Your task to perform on an android device: visit the assistant section in the google photos Image 0: 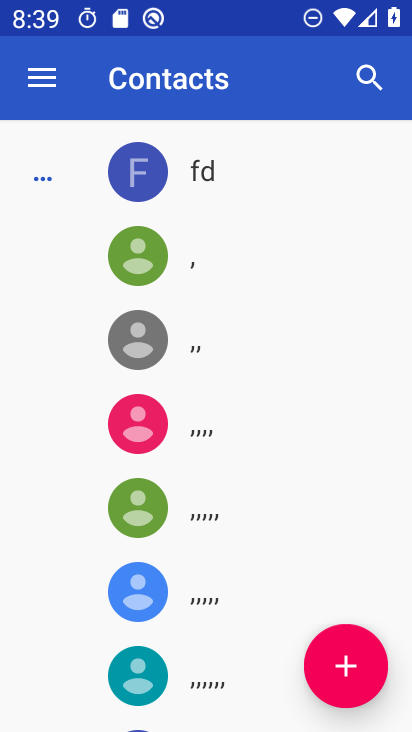
Step 0: press home button
Your task to perform on an android device: visit the assistant section in the google photos Image 1: 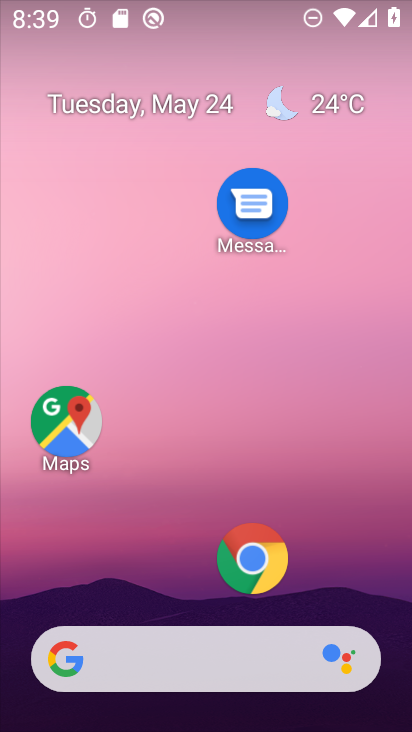
Step 1: drag from (161, 600) to (167, 229)
Your task to perform on an android device: visit the assistant section in the google photos Image 2: 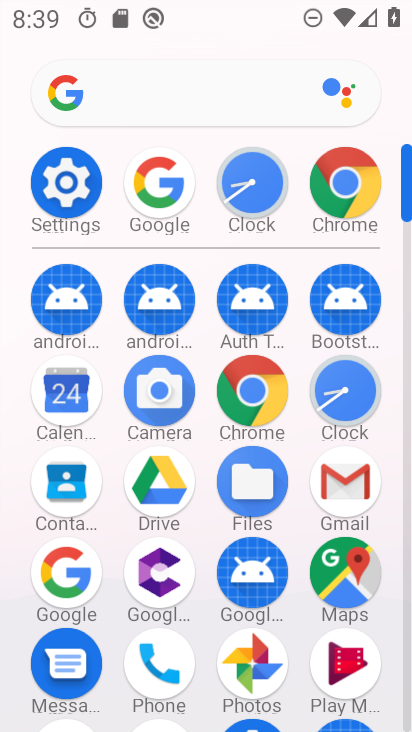
Step 2: click (238, 665)
Your task to perform on an android device: visit the assistant section in the google photos Image 3: 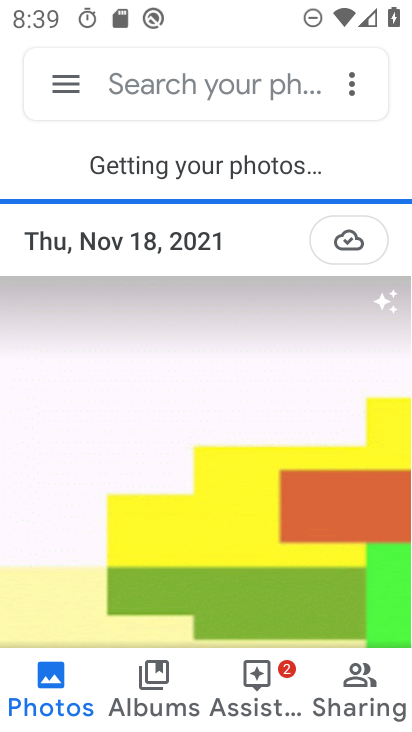
Step 3: click (244, 665)
Your task to perform on an android device: visit the assistant section in the google photos Image 4: 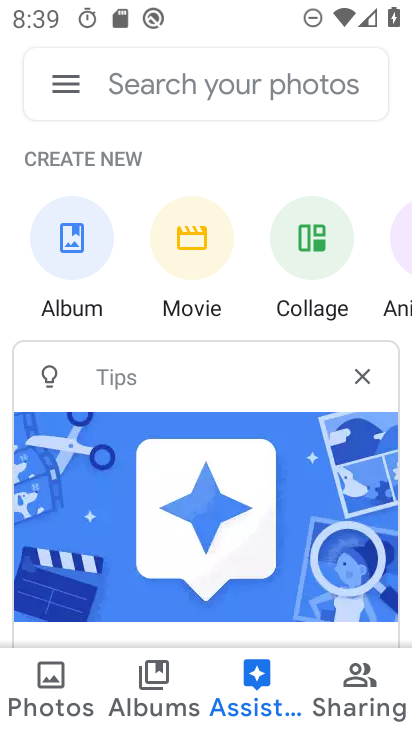
Step 4: task complete